Your task to perform on an android device: Open Reddit.com Image 0: 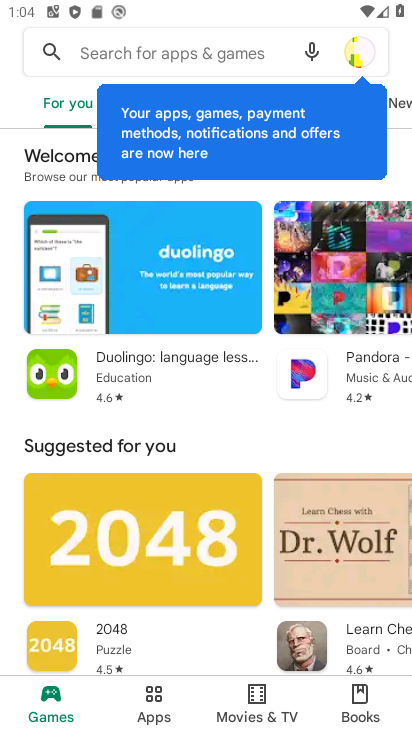
Step 0: press home button
Your task to perform on an android device: Open Reddit.com Image 1: 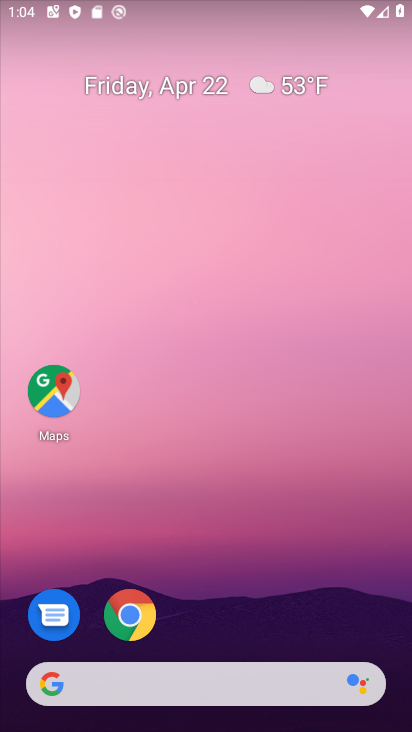
Step 1: click (131, 620)
Your task to perform on an android device: Open Reddit.com Image 2: 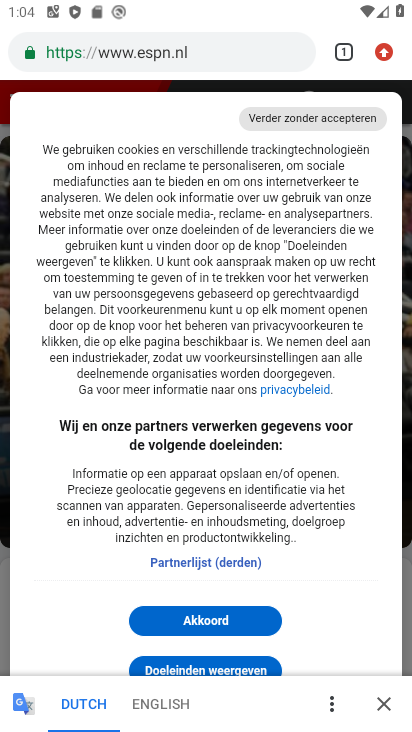
Step 2: click (126, 55)
Your task to perform on an android device: Open Reddit.com Image 3: 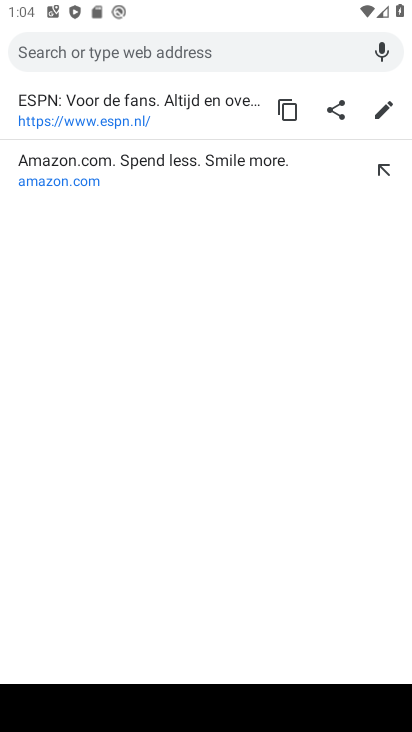
Step 3: type "reddit.com"
Your task to perform on an android device: Open Reddit.com Image 4: 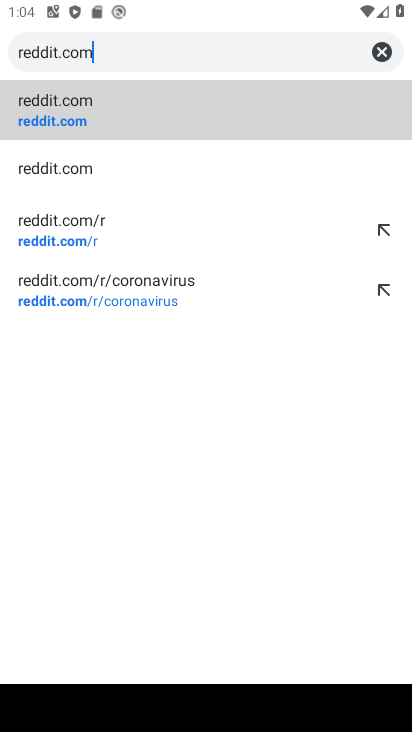
Step 4: click (44, 173)
Your task to perform on an android device: Open Reddit.com Image 5: 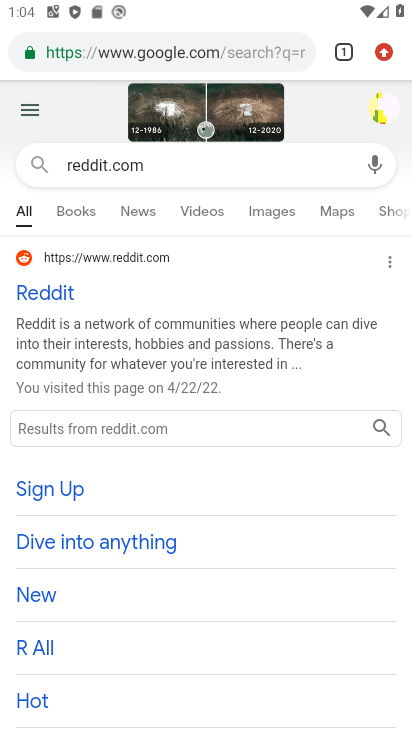
Step 5: click (62, 299)
Your task to perform on an android device: Open Reddit.com Image 6: 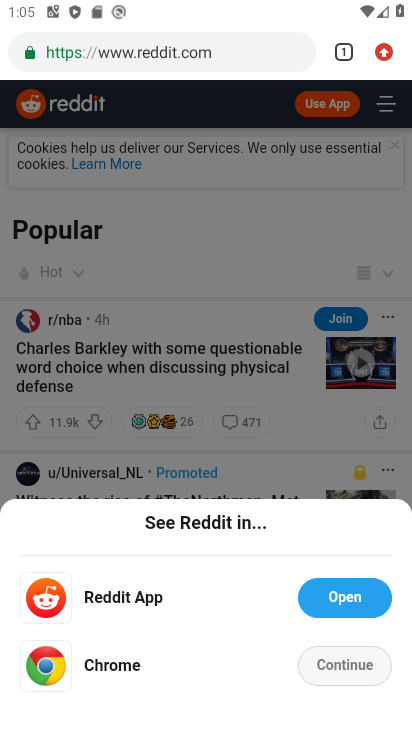
Step 6: task complete